Your task to perform on an android device: turn off picture-in-picture Image 0: 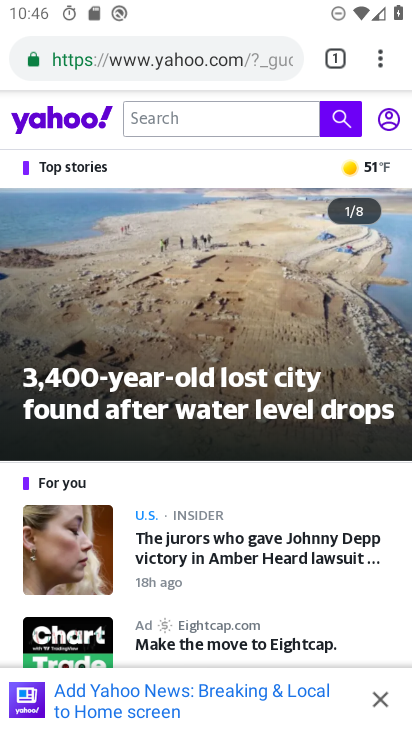
Step 0: press home button
Your task to perform on an android device: turn off picture-in-picture Image 1: 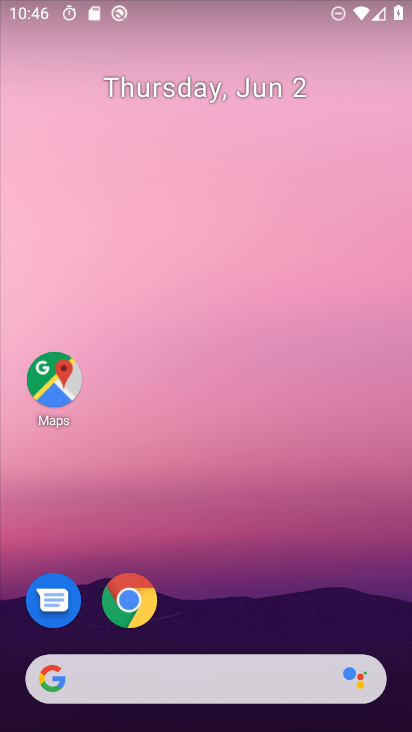
Step 1: click (133, 601)
Your task to perform on an android device: turn off picture-in-picture Image 2: 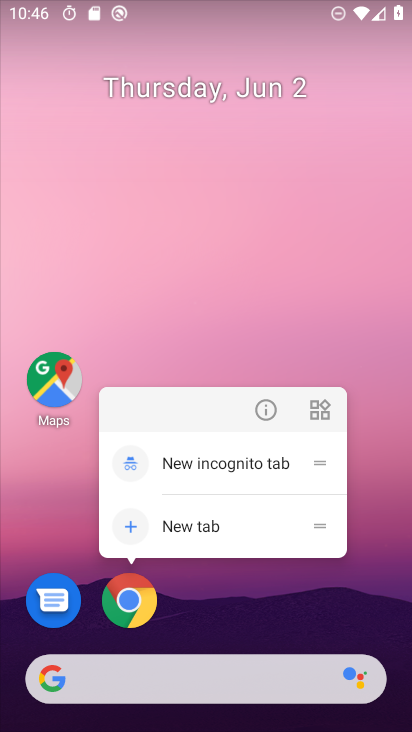
Step 2: click (268, 406)
Your task to perform on an android device: turn off picture-in-picture Image 3: 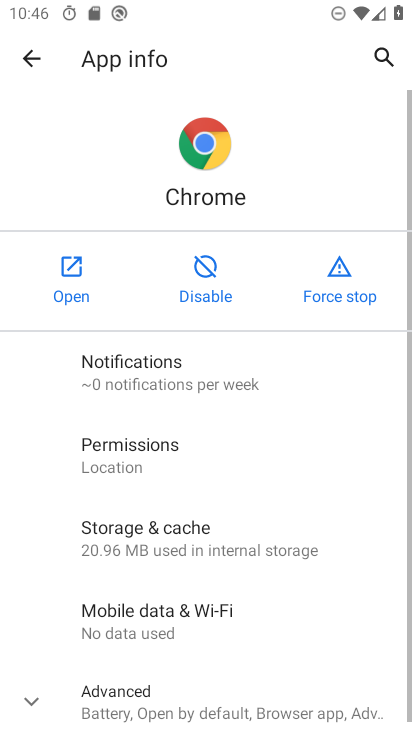
Step 3: drag from (223, 564) to (205, 222)
Your task to perform on an android device: turn off picture-in-picture Image 4: 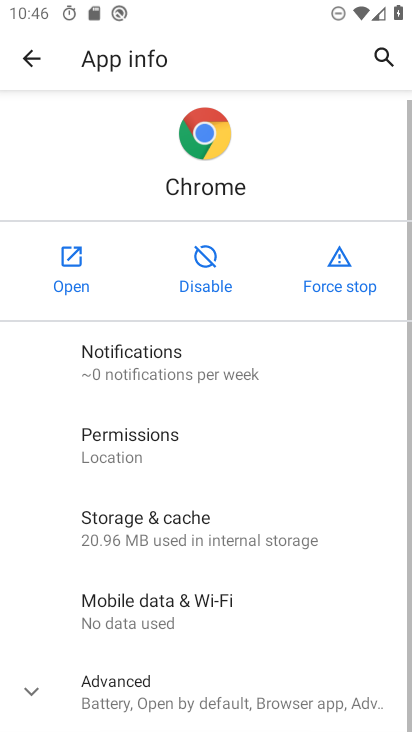
Step 4: click (131, 690)
Your task to perform on an android device: turn off picture-in-picture Image 5: 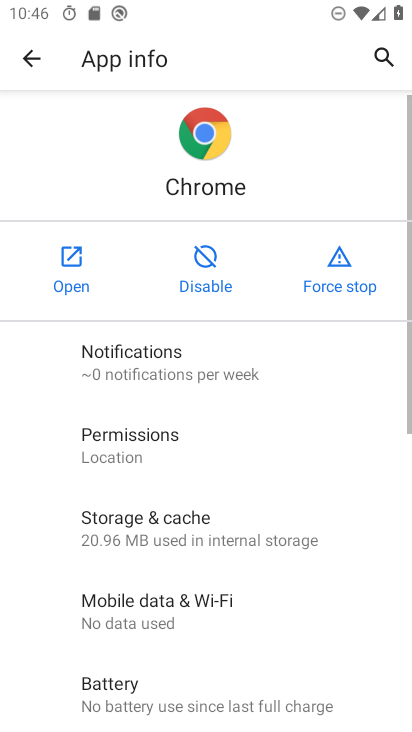
Step 5: drag from (248, 637) to (225, 254)
Your task to perform on an android device: turn off picture-in-picture Image 6: 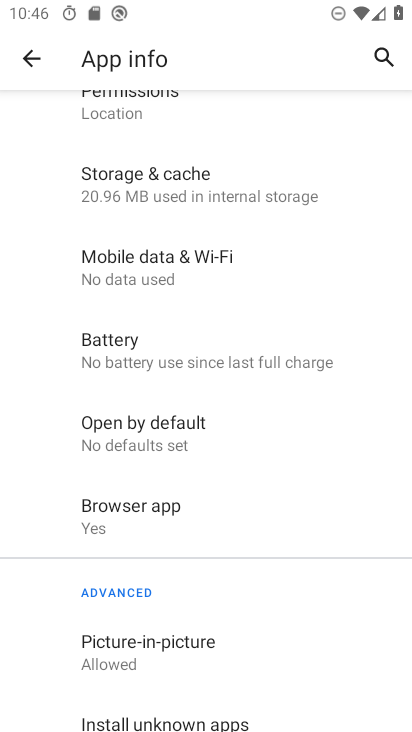
Step 6: click (141, 658)
Your task to perform on an android device: turn off picture-in-picture Image 7: 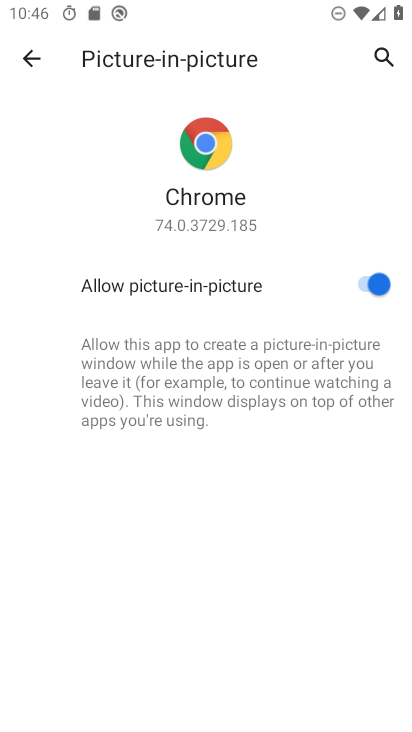
Step 7: click (360, 275)
Your task to perform on an android device: turn off picture-in-picture Image 8: 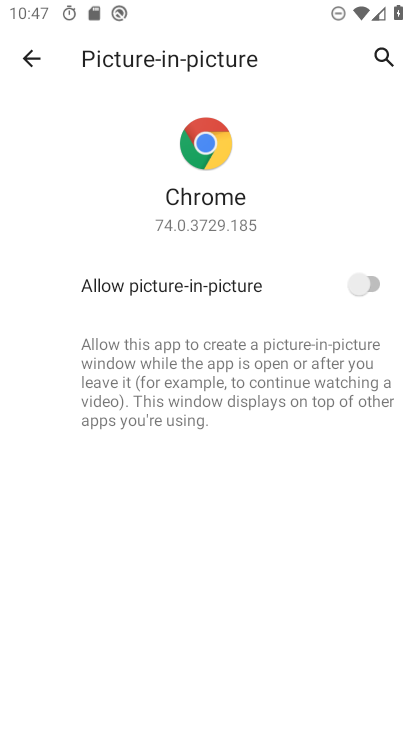
Step 8: task complete